Your task to perform on an android device: read, delete, or share a saved page in the chrome app Image 0: 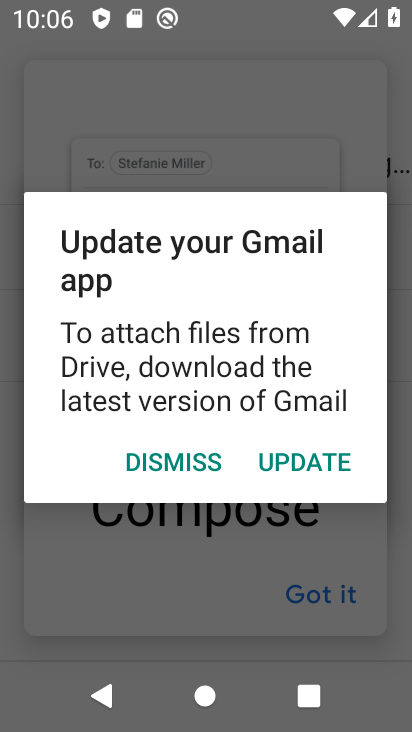
Step 0: press home button
Your task to perform on an android device: read, delete, or share a saved page in the chrome app Image 1: 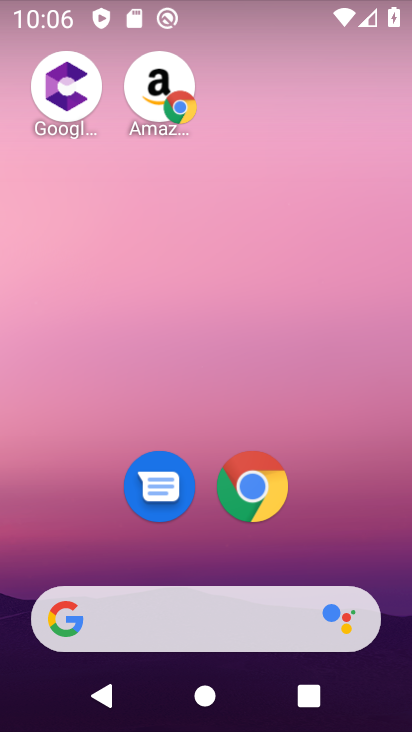
Step 1: click (252, 483)
Your task to perform on an android device: read, delete, or share a saved page in the chrome app Image 2: 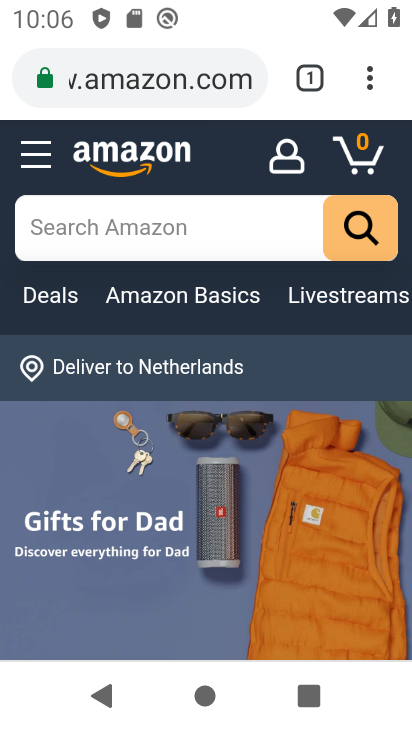
Step 2: click (370, 76)
Your task to perform on an android device: read, delete, or share a saved page in the chrome app Image 3: 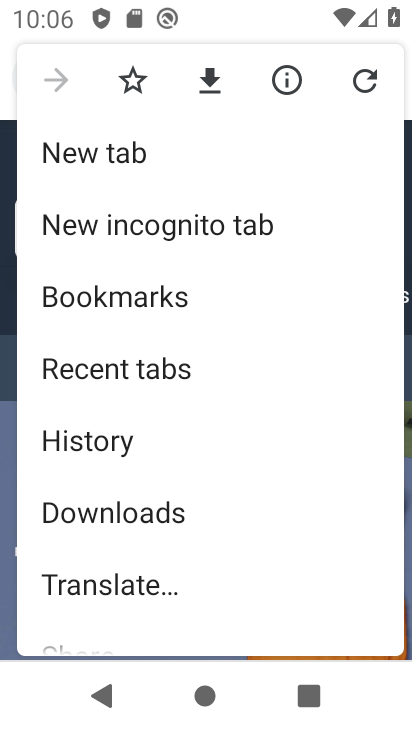
Step 3: click (163, 510)
Your task to perform on an android device: read, delete, or share a saved page in the chrome app Image 4: 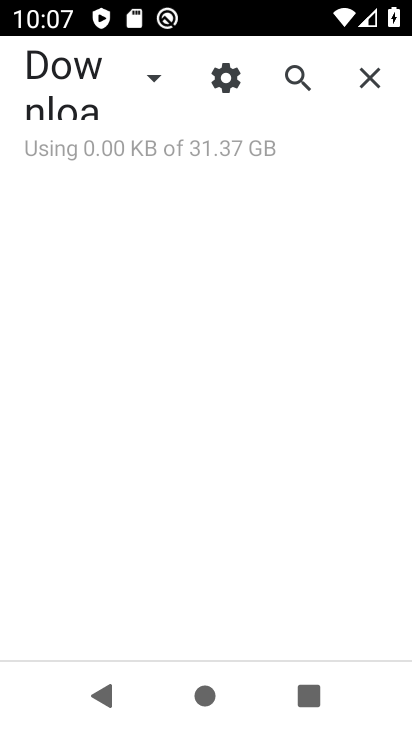
Step 4: click (149, 79)
Your task to perform on an android device: read, delete, or share a saved page in the chrome app Image 5: 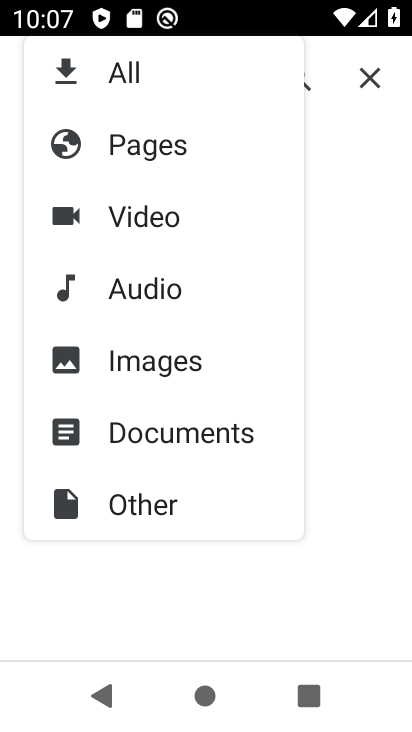
Step 5: click (109, 133)
Your task to perform on an android device: read, delete, or share a saved page in the chrome app Image 6: 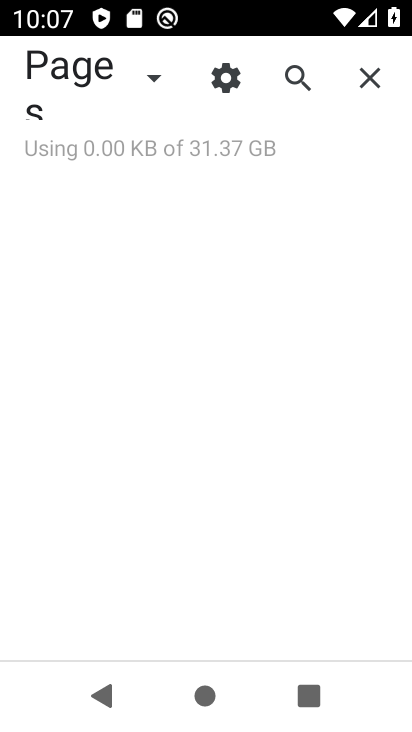
Step 6: task complete